Your task to perform on an android device: Search for pizza restaurants on Maps Image 0: 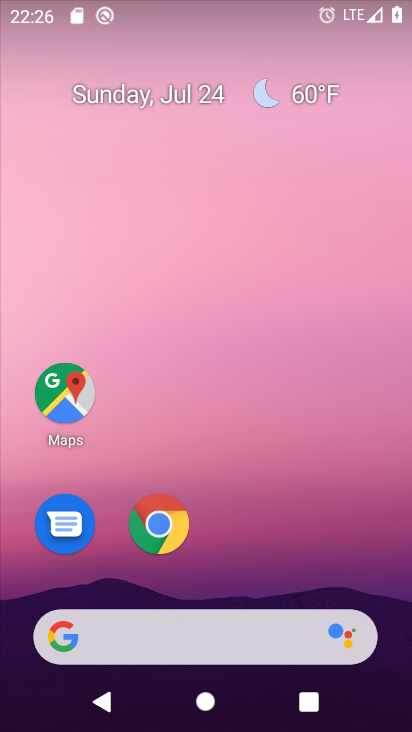
Step 0: click (69, 392)
Your task to perform on an android device: Search for pizza restaurants on Maps Image 1: 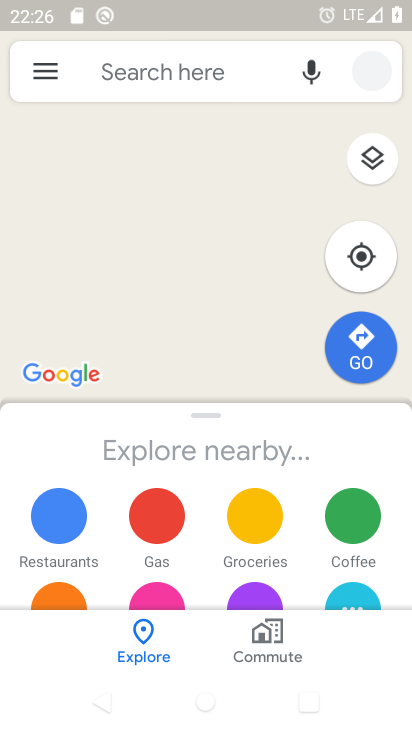
Step 1: click (212, 77)
Your task to perform on an android device: Search for pizza restaurants on Maps Image 2: 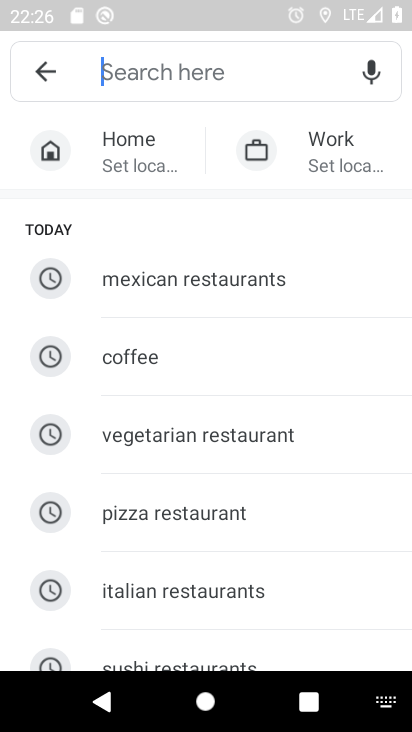
Step 2: click (195, 514)
Your task to perform on an android device: Search for pizza restaurants on Maps Image 3: 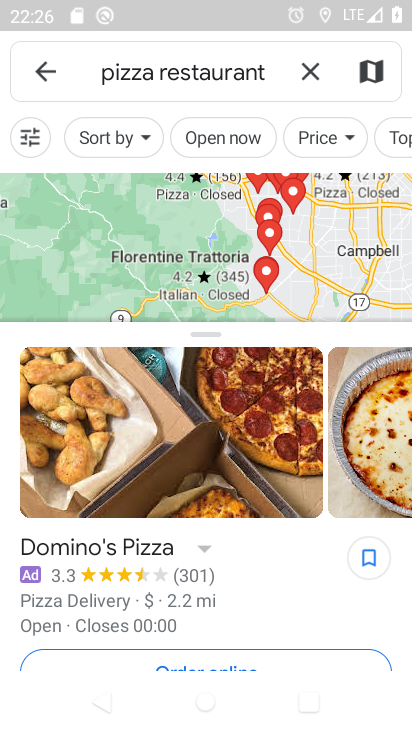
Step 3: task complete